Your task to perform on an android device: see tabs open on other devices in the chrome app Image 0: 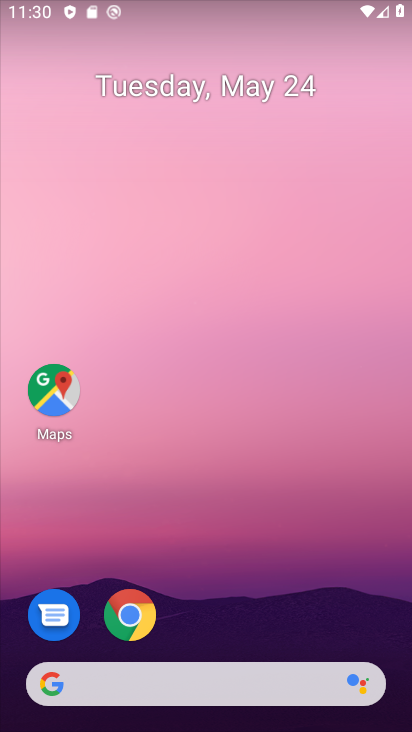
Step 0: click (131, 615)
Your task to perform on an android device: see tabs open on other devices in the chrome app Image 1: 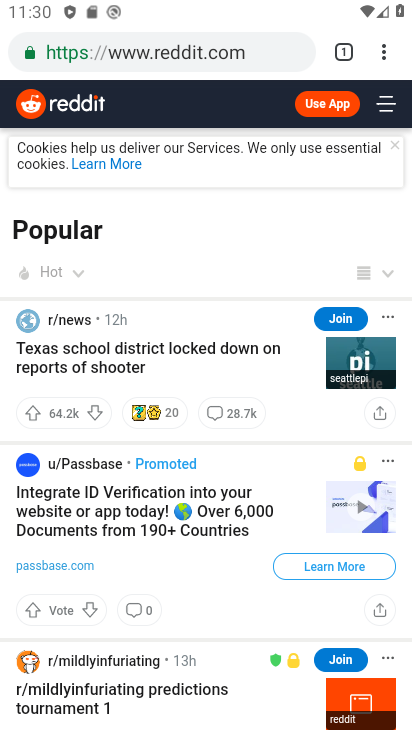
Step 1: click (385, 52)
Your task to perform on an android device: see tabs open on other devices in the chrome app Image 2: 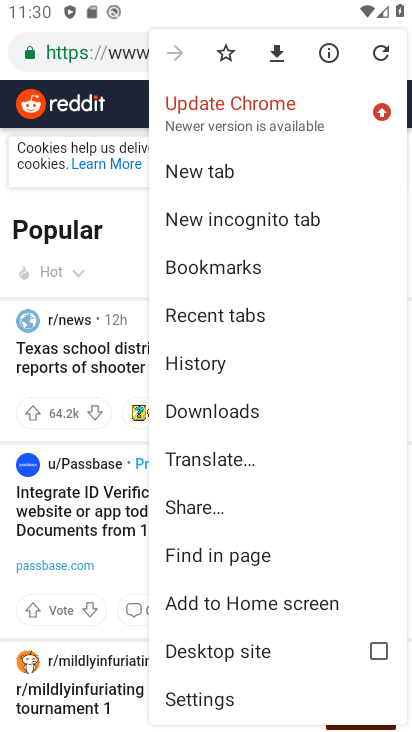
Step 2: click (228, 314)
Your task to perform on an android device: see tabs open on other devices in the chrome app Image 3: 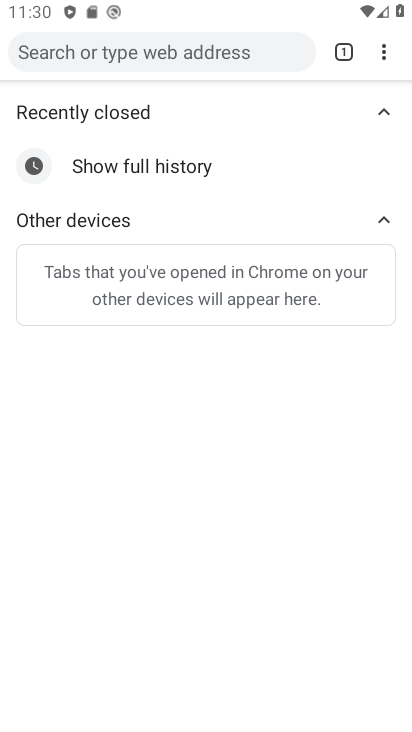
Step 3: task complete